Your task to perform on an android device: set the stopwatch Image 0: 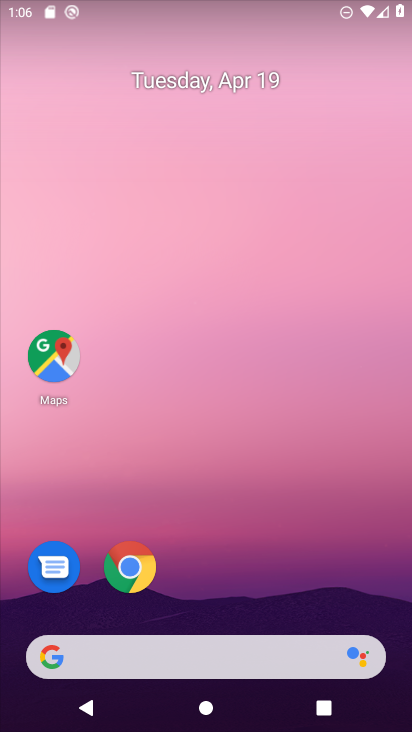
Step 0: drag from (289, 565) to (370, 106)
Your task to perform on an android device: set the stopwatch Image 1: 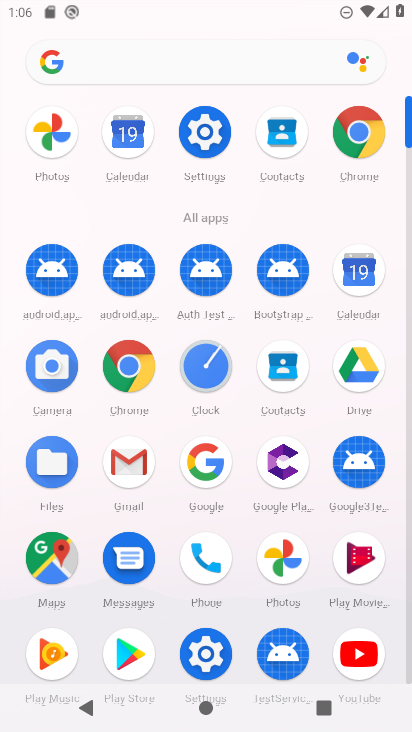
Step 1: click (214, 368)
Your task to perform on an android device: set the stopwatch Image 2: 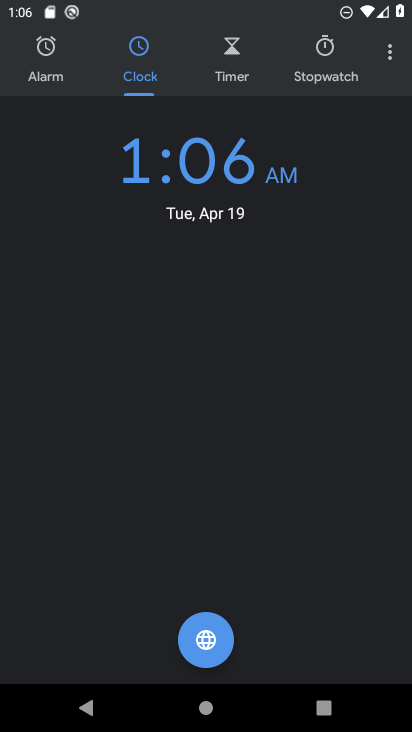
Step 2: click (319, 83)
Your task to perform on an android device: set the stopwatch Image 3: 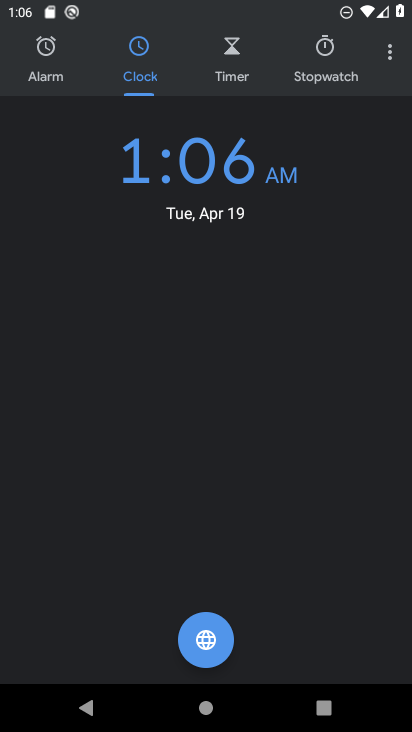
Step 3: click (324, 47)
Your task to perform on an android device: set the stopwatch Image 4: 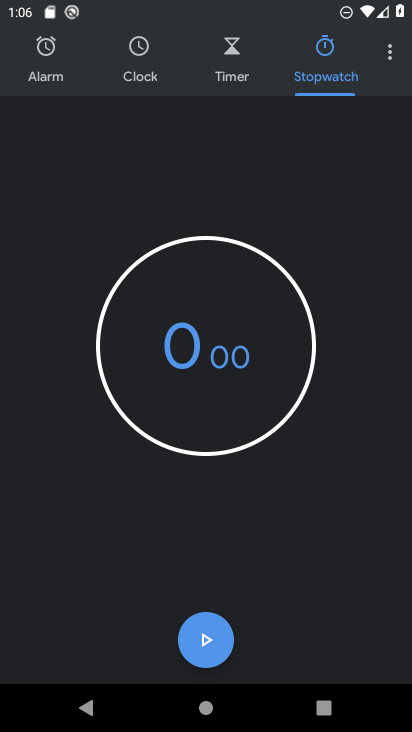
Step 4: click (204, 640)
Your task to perform on an android device: set the stopwatch Image 5: 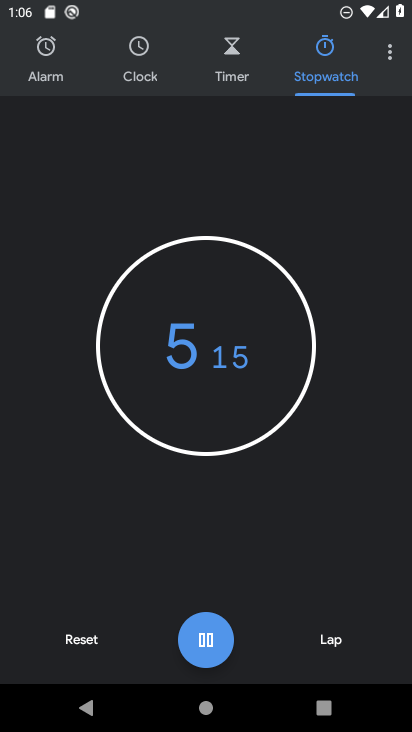
Step 5: click (206, 639)
Your task to perform on an android device: set the stopwatch Image 6: 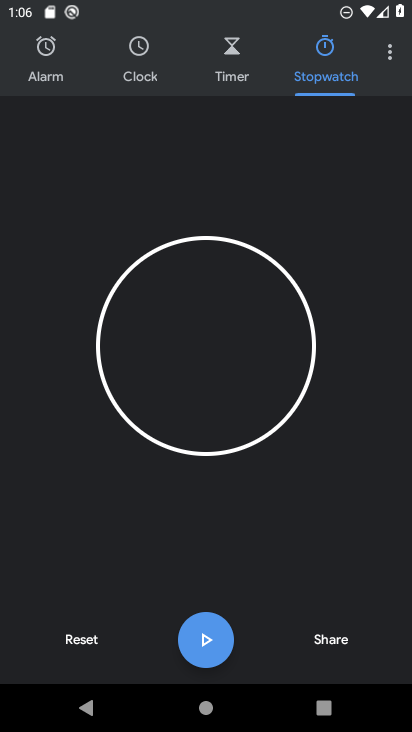
Step 6: task complete